Your task to perform on an android device: turn off data saver in the chrome app Image 0: 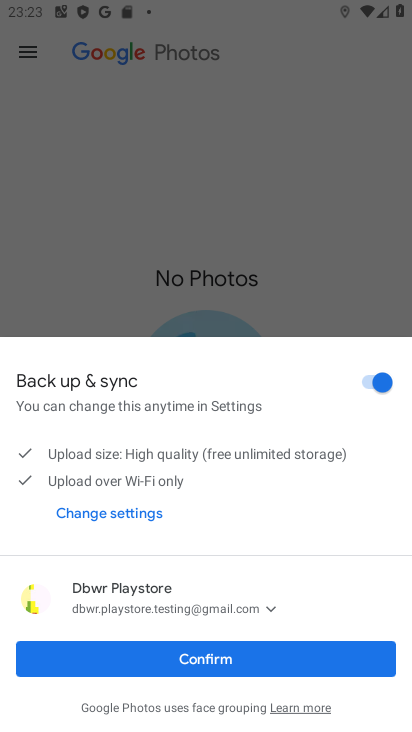
Step 0: press home button
Your task to perform on an android device: turn off data saver in the chrome app Image 1: 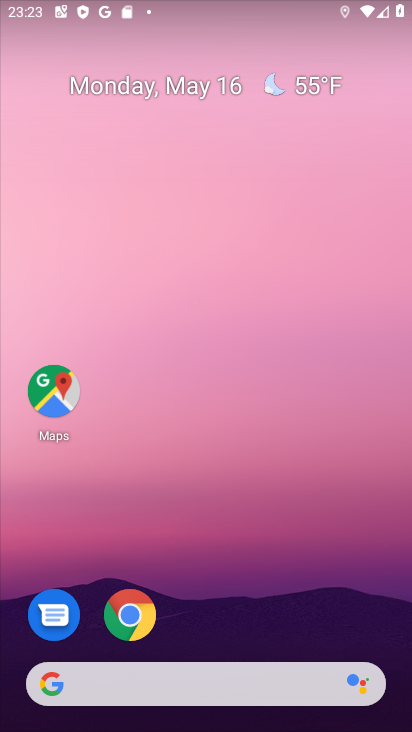
Step 1: click (134, 629)
Your task to perform on an android device: turn off data saver in the chrome app Image 2: 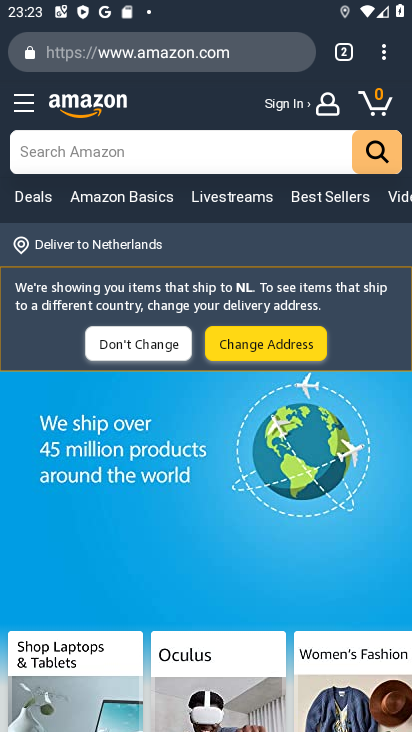
Step 2: click (379, 46)
Your task to perform on an android device: turn off data saver in the chrome app Image 3: 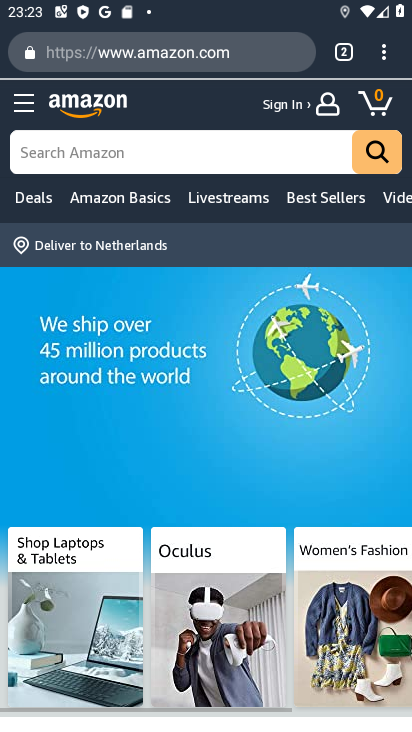
Step 3: drag from (383, 58) to (203, 634)
Your task to perform on an android device: turn off data saver in the chrome app Image 4: 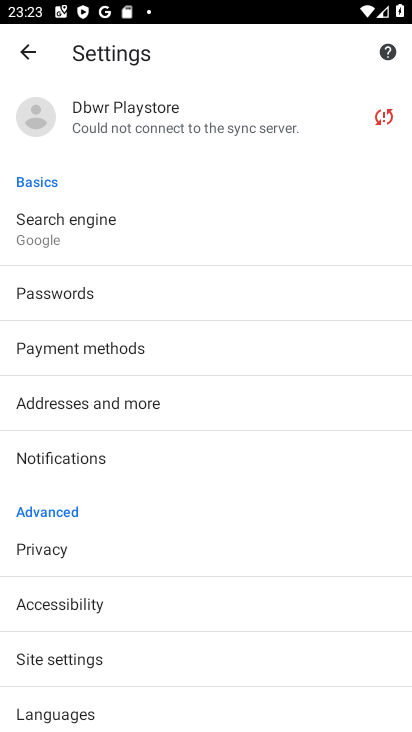
Step 4: drag from (93, 643) to (70, 221)
Your task to perform on an android device: turn off data saver in the chrome app Image 5: 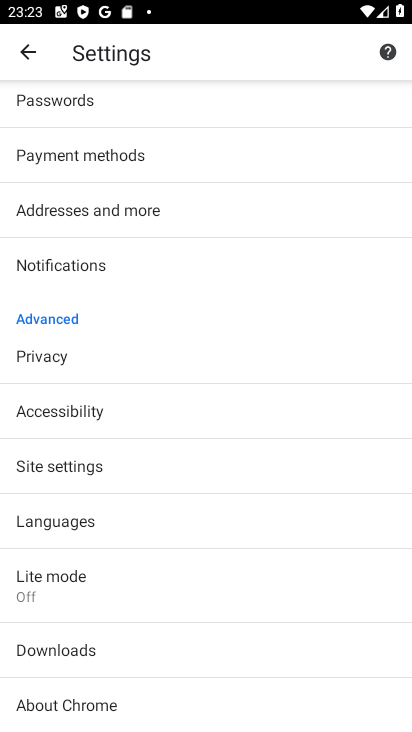
Step 5: click (95, 601)
Your task to perform on an android device: turn off data saver in the chrome app Image 6: 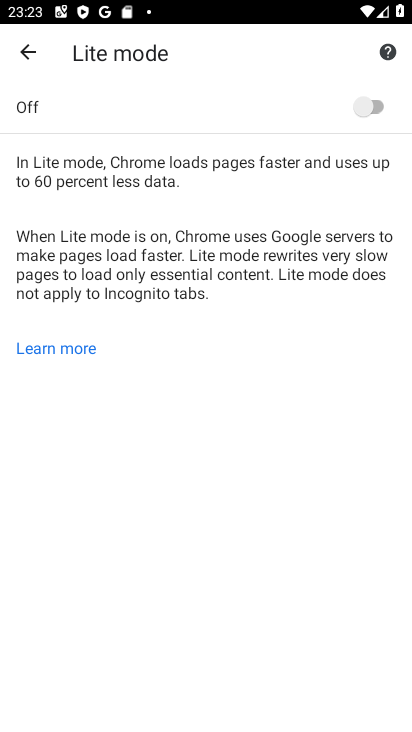
Step 6: task complete